Your task to perform on an android device: set an alarm Image 0: 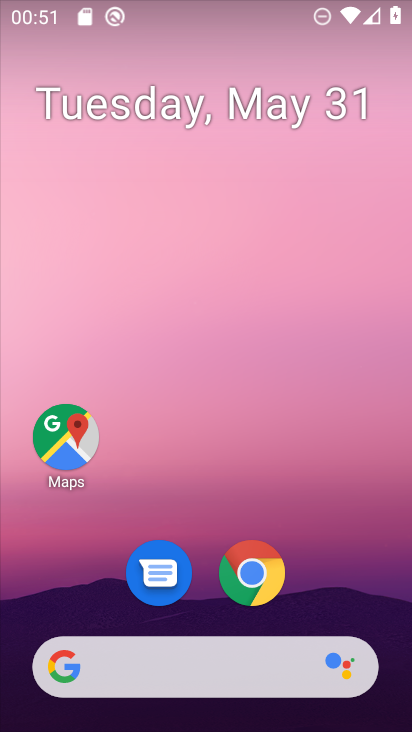
Step 0: drag from (176, 697) to (186, 83)
Your task to perform on an android device: set an alarm Image 1: 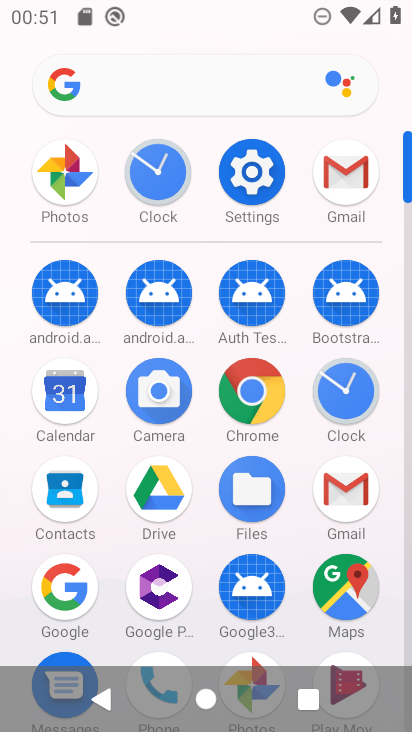
Step 1: click (358, 392)
Your task to perform on an android device: set an alarm Image 2: 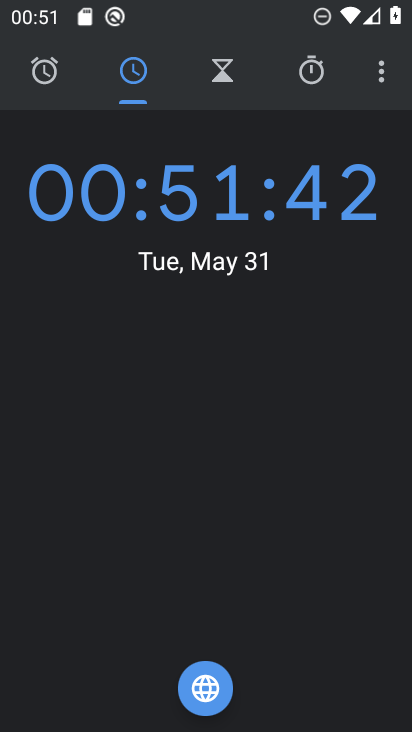
Step 2: click (50, 69)
Your task to perform on an android device: set an alarm Image 3: 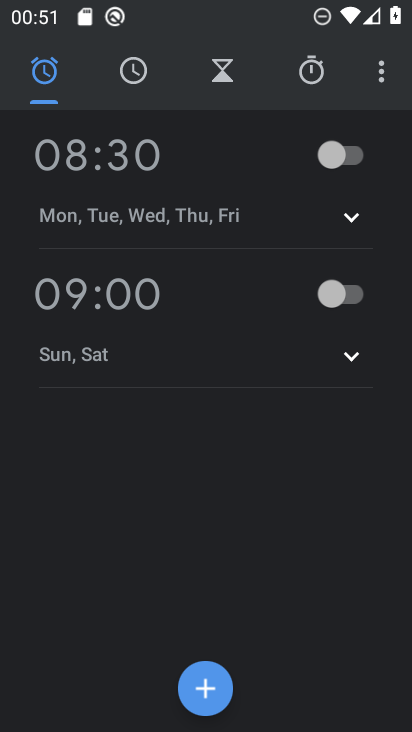
Step 3: click (208, 698)
Your task to perform on an android device: set an alarm Image 4: 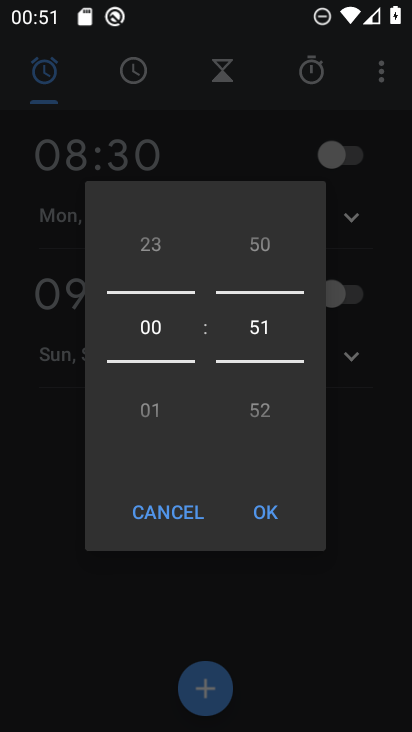
Step 4: click (284, 518)
Your task to perform on an android device: set an alarm Image 5: 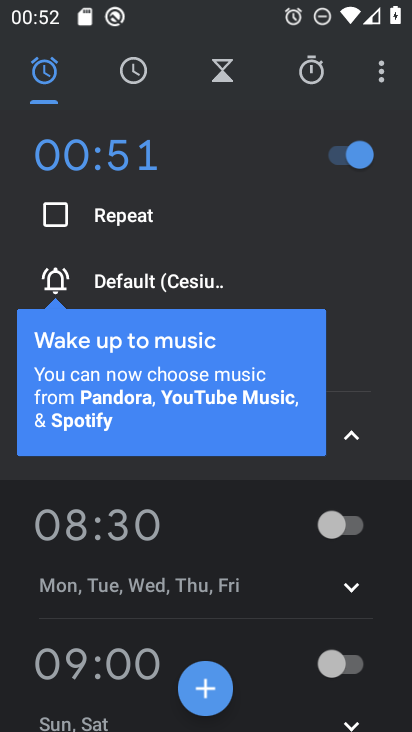
Step 5: task complete